Your task to perform on an android device: toggle pop-ups in chrome Image 0: 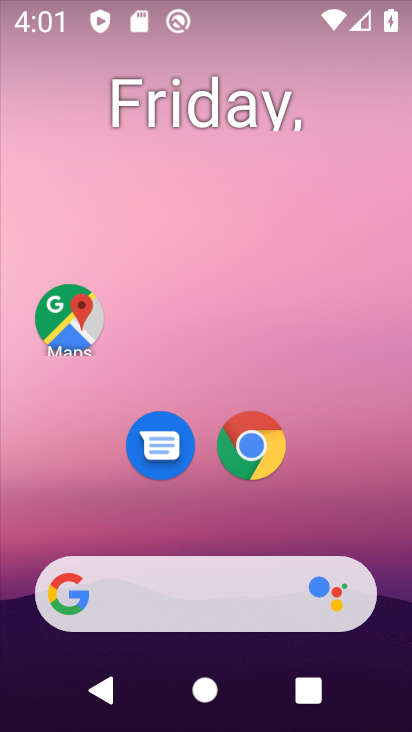
Step 0: press home button
Your task to perform on an android device: toggle pop-ups in chrome Image 1: 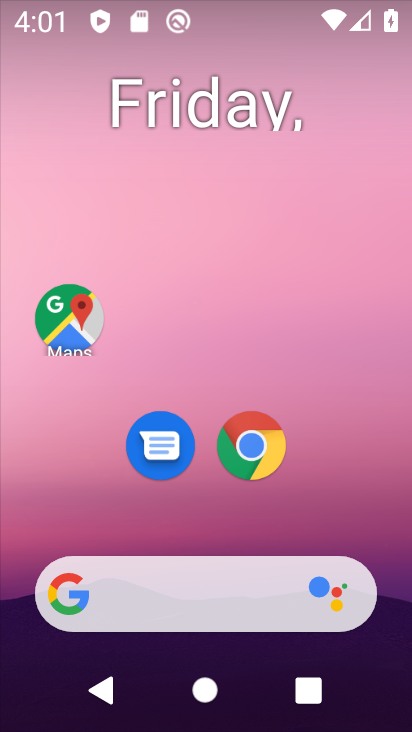
Step 1: click (238, 460)
Your task to perform on an android device: toggle pop-ups in chrome Image 2: 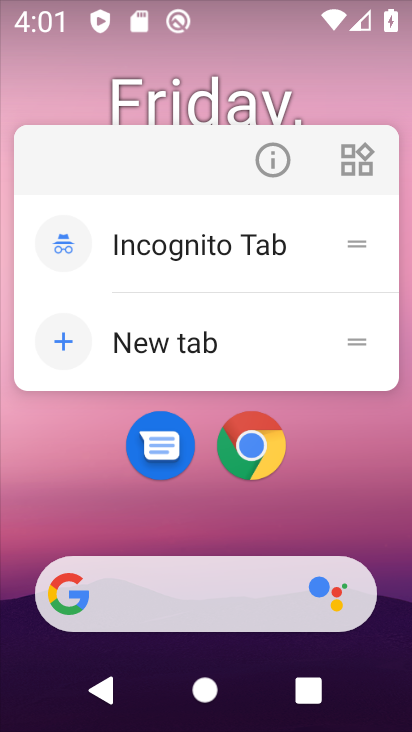
Step 2: click (249, 464)
Your task to perform on an android device: toggle pop-ups in chrome Image 3: 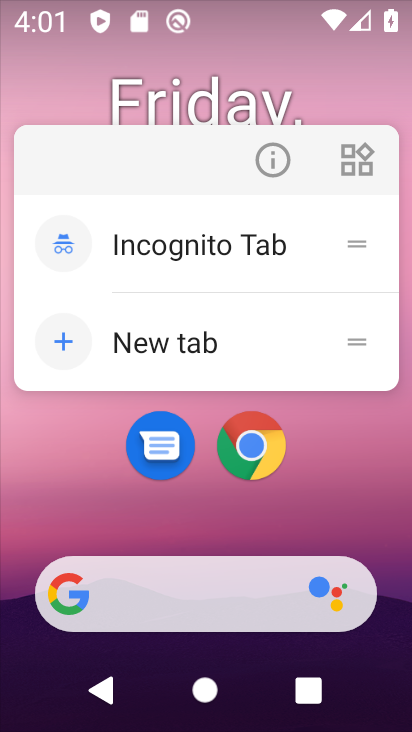
Step 3: click (275, 450)
Your task to perform on an android device: toggle pop-ups in chrome Image 4: 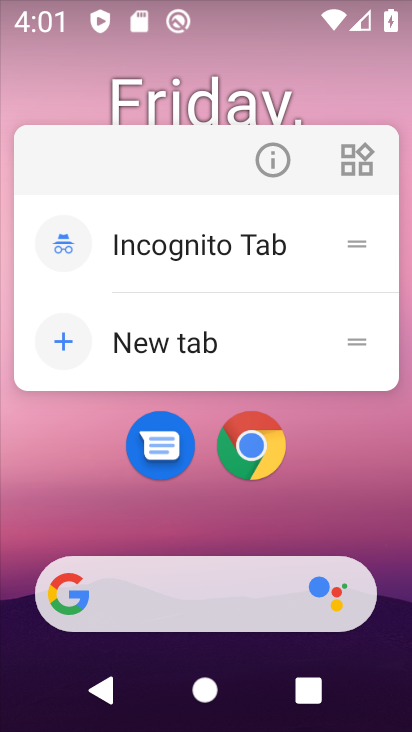
Step 4: click (299, 509)
Your task to perform on an android device: toggle pop-ups in chrome Image 5: 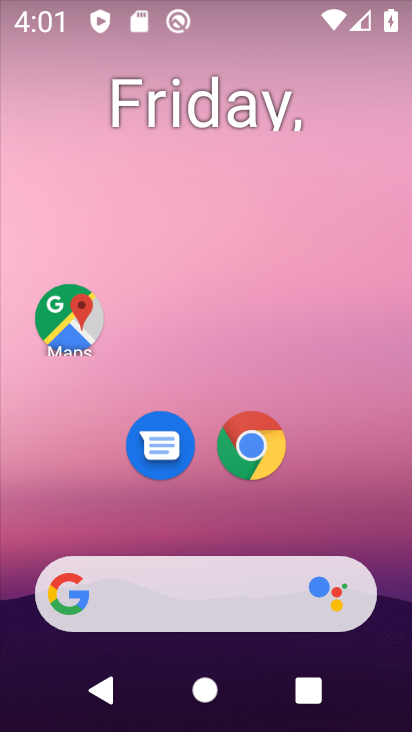
Step 5: drag from (307, 538) to (410, 98)
Your task to perform on an android device: toggle pop-ups in chrome Image 6: 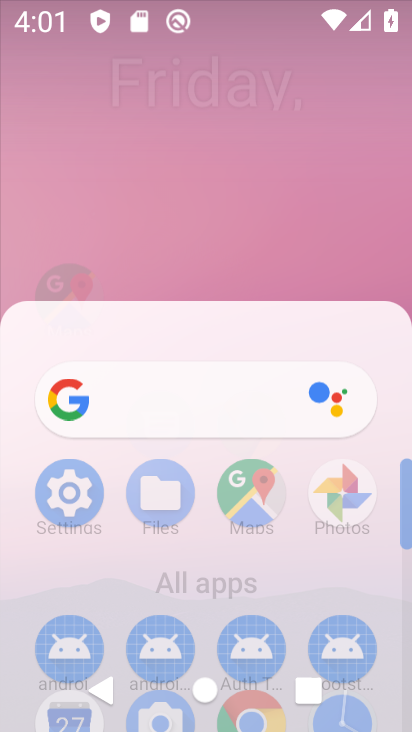
Step 6: click (14, 568)
Your task to perform on an android device: toggle pop-ups in chrome Image 7: 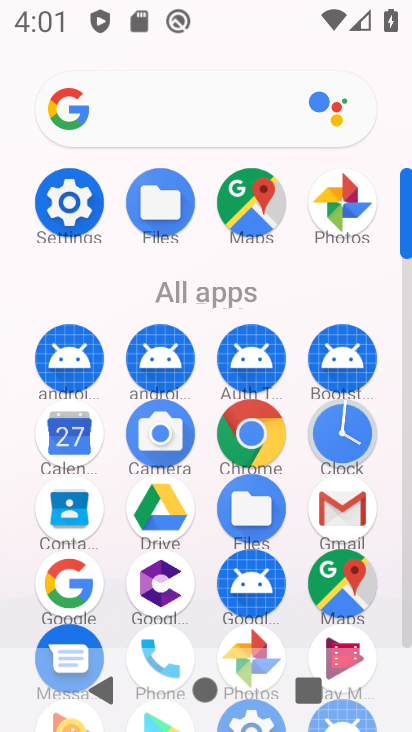
Step 7: click (261, 437)
Your task to perform on an android device: toggle pop-ups in chrome Image 8: 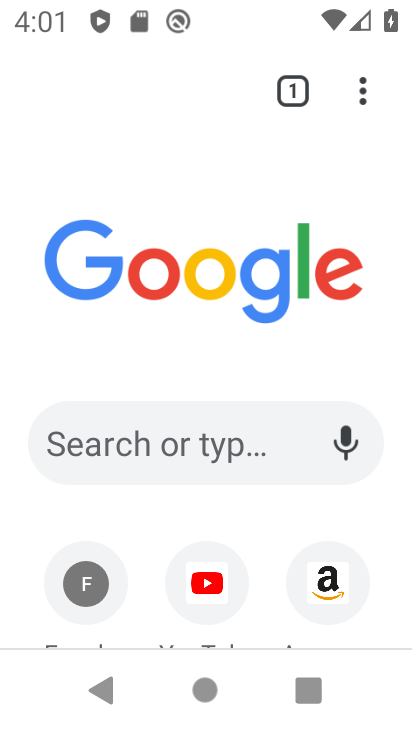
Step 8: drag from (363, 99) to (285, 484)
Your task to perform on an android device: toggle pop-ups in chrome Image 9: 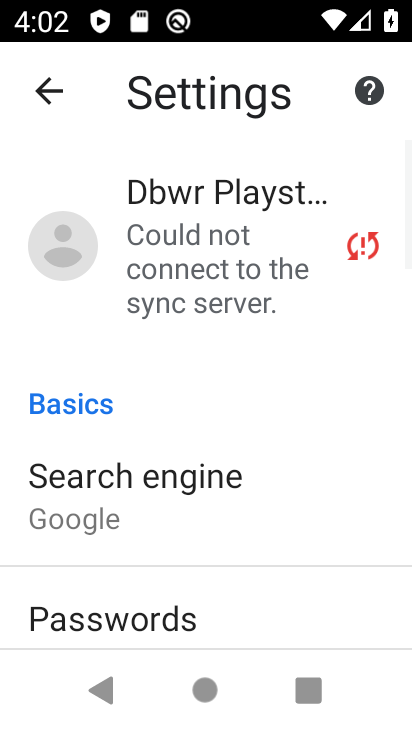
Step 9: drag from (255, 612) to (310, 285)
Your task to perform on an android device: toggle pop-ups in chrome Image 10: 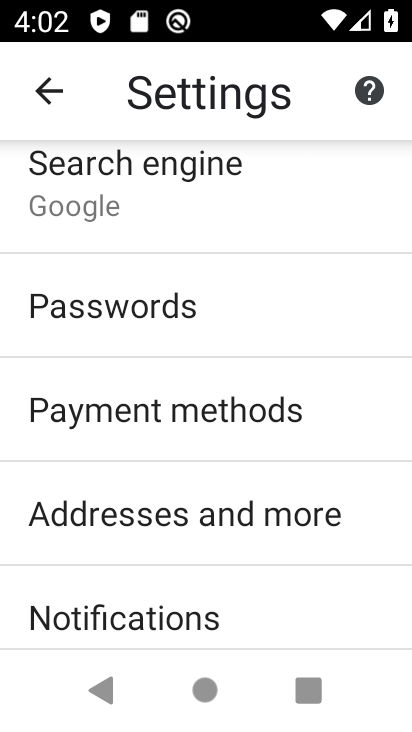
Step 10: drag from (301, 593) to (311, 268)
Your task to perform on an android device: toggle pop-ups in chrome Image 11: 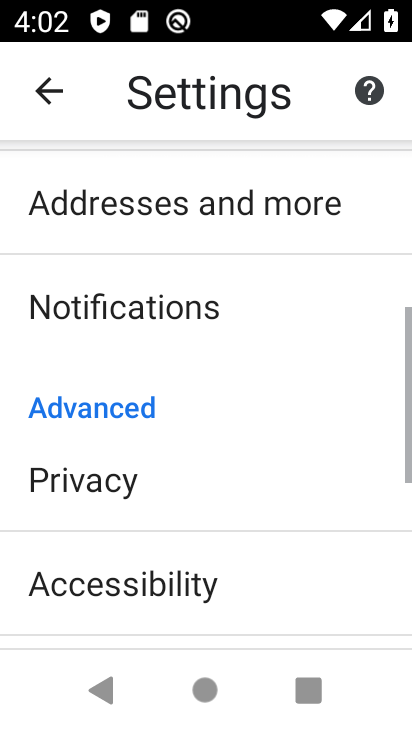
Step 11: click (295, 378)
Your task to perform on an android device: toggle pop-ups in chrome Image 12: 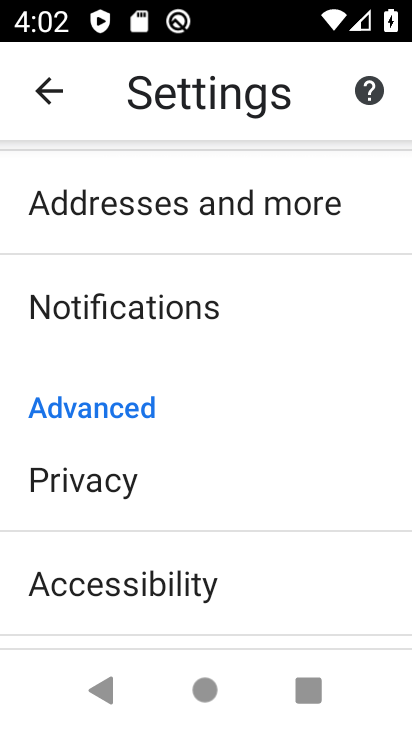
Step 12: drag from (289, 538) to (319, 166)
Your task to perform on an android device: toggle pop-ups in chrome Image 13: 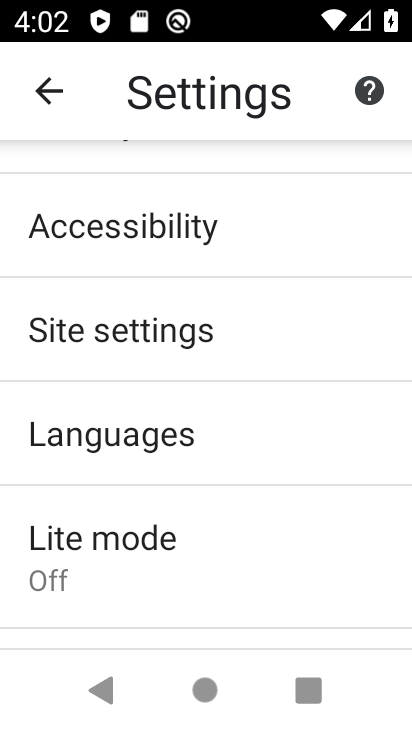
Step 13: click (111, 327)
Your task to perform on an android device: toggle pop-ups in chrome Image 14: 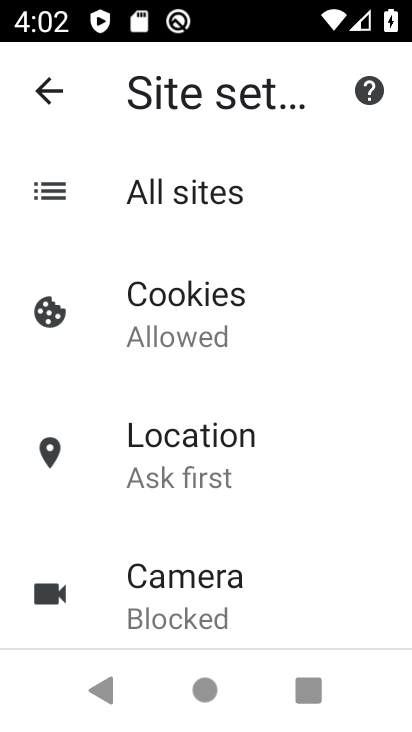
Step 14: drag from (294, 536) to (343, 151)
Your task to perform on an android device: toggle pop-ups in chrome Image 15: 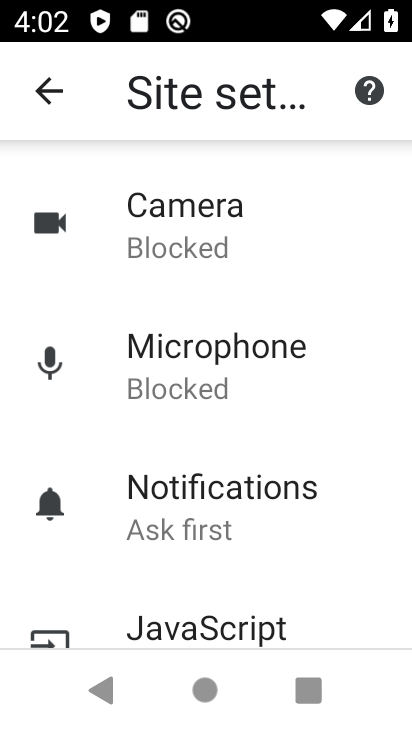
Step 15: drag from (359, 571) to (410, 166)
Your task to perform on an android device: toggle pop-ups in chrome Image 16: 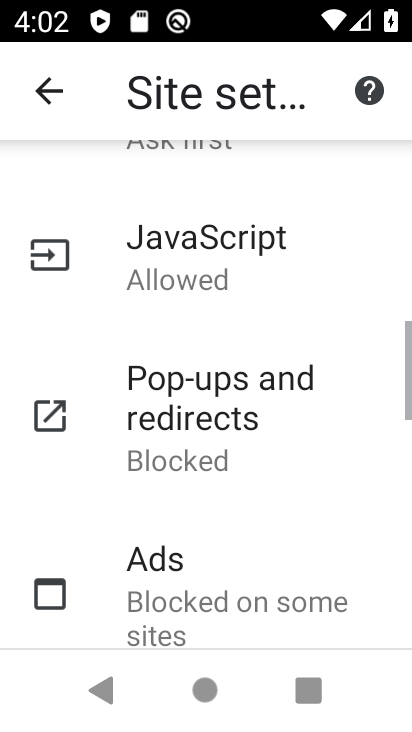
Step 16: click (224, 494)
Your task to perform on an android device: toggle pop-ups in chrome Image 17: 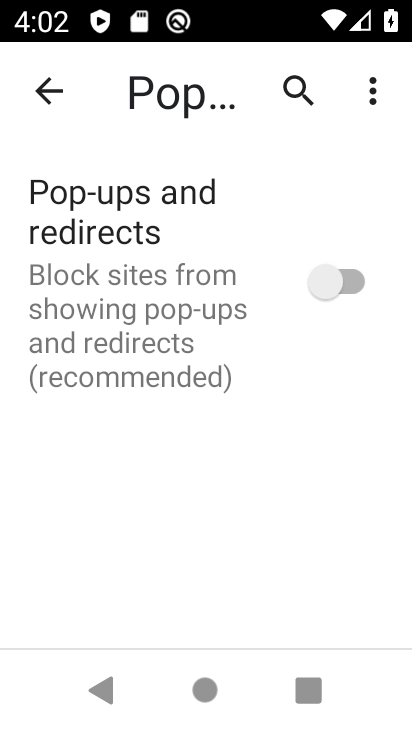
Step 17: click (349, 277)
Your task to perform on an android device: toggle pop-ups in chrome Image 18: 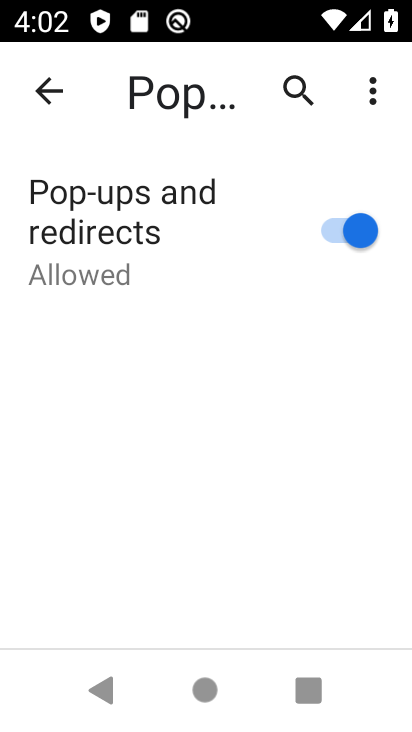
Step 18: task complete